Your task to perform on an android device: add a contact Image 0: 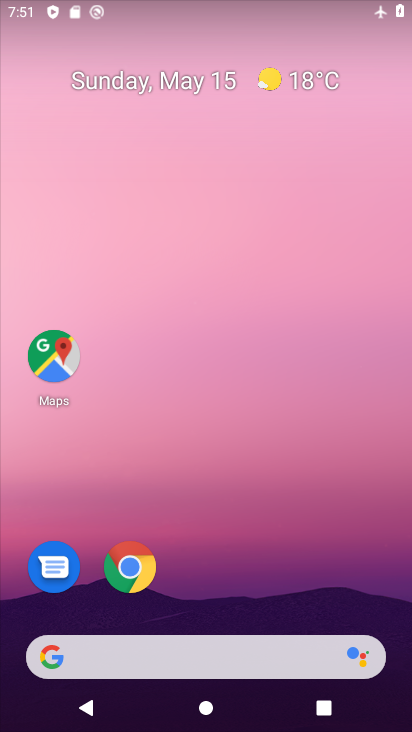
Step 0: drag from (274, 712) to (274, 108)
Your task to perform on an android device: add a contact Image 1: 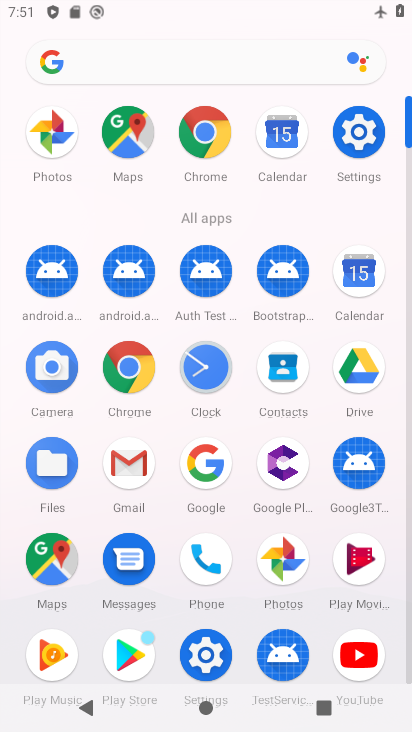
Step 1: click (289, 364)
Your task to perform on an android device: add a contact Image 2: 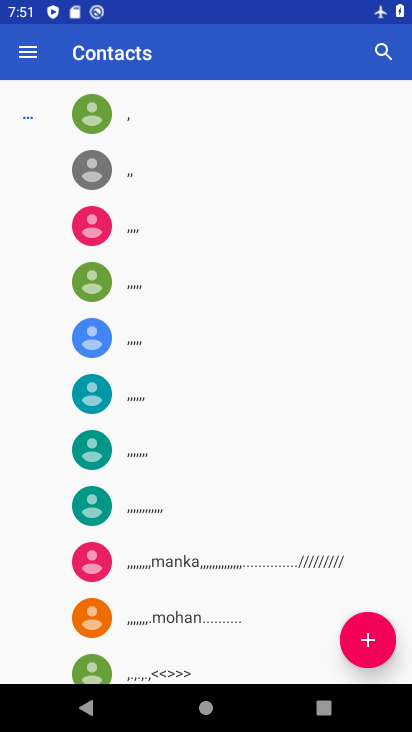
Step 2: click (365, 632)
Your task to perform on an android device: add a contact Image 3: 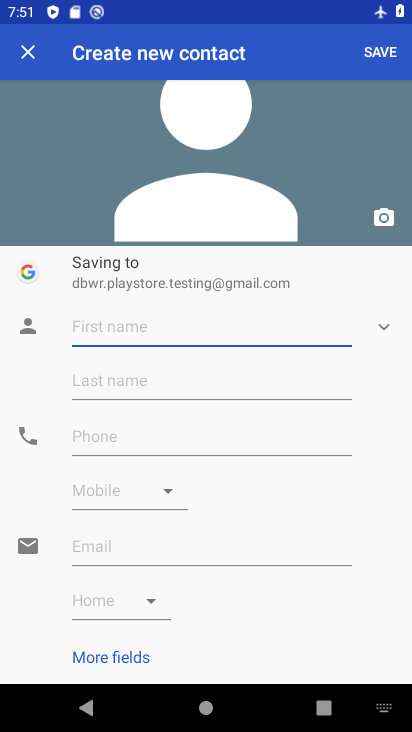
Step 3: type "hgfu"
Your task to perform on an android device: add a contact Image 4: 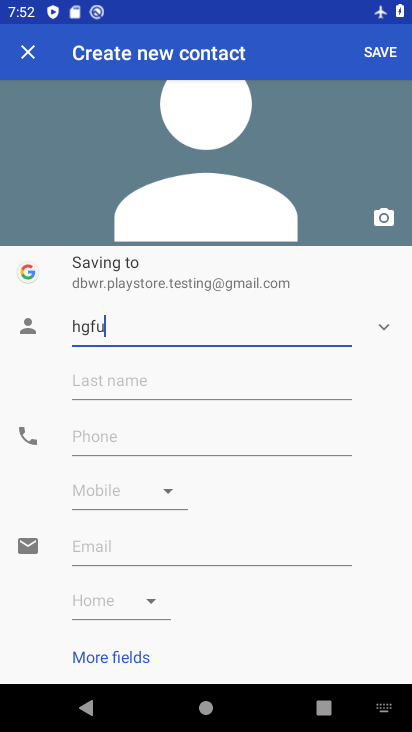
Step 4: click (214, 439)
Your task to perform on an android device: add a contact Image 5: 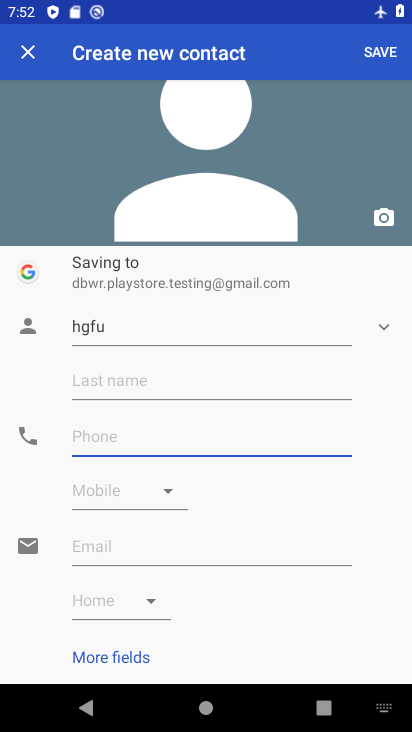
Step 5: type "78"
Your task to perform on an android device: add a contact Image 6: 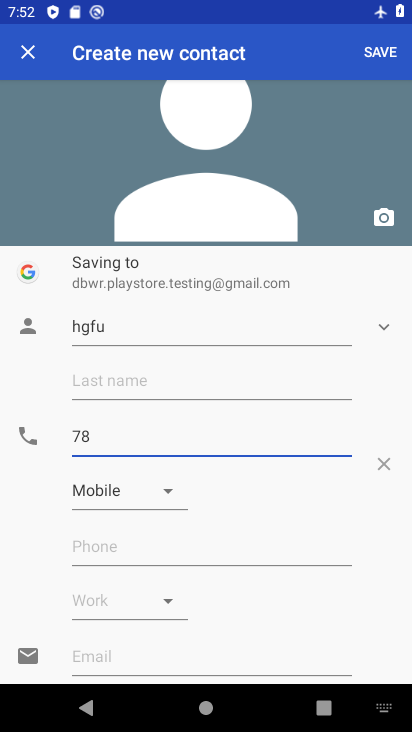
Step 6: click (381, 55)
Your task to perform on an android device: add a contact Image 7: 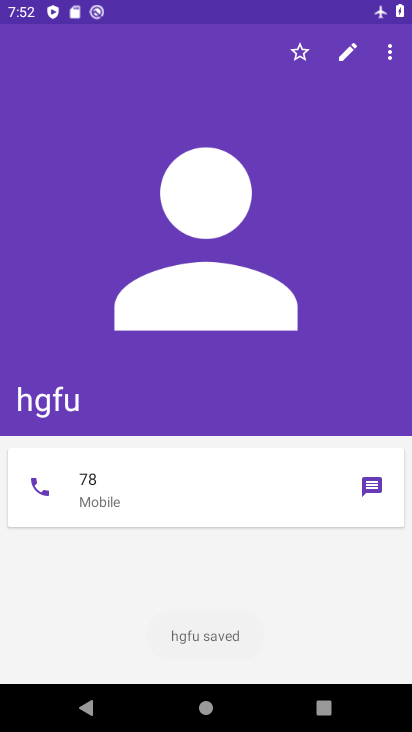
Step 7: task complete